Your task to perform on an android device: turn on data saver in the chrome app Image 0: 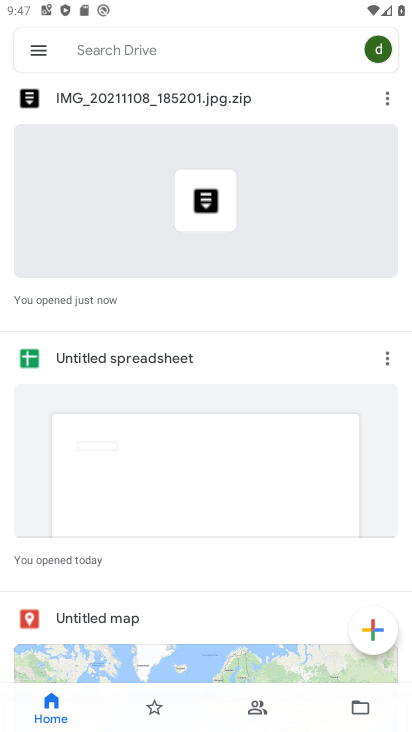
Step 0: press home button
Your task to perform on an android device: turn on data saver in the chrome app Image 1: 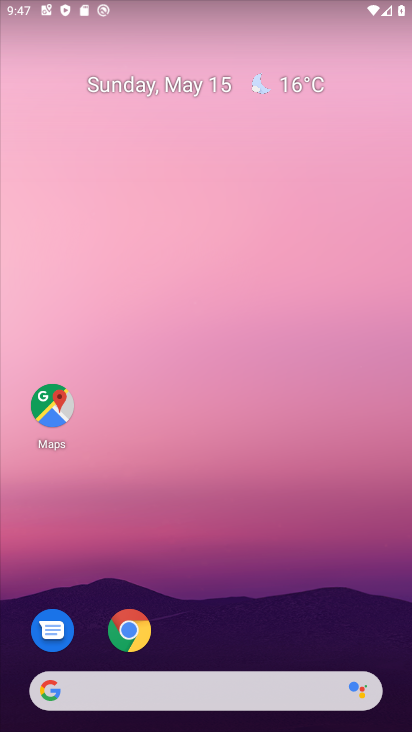
Step 1: click (133, 615)
Your task to perform on an android device: turn on data saver in the chrome app Image 2: 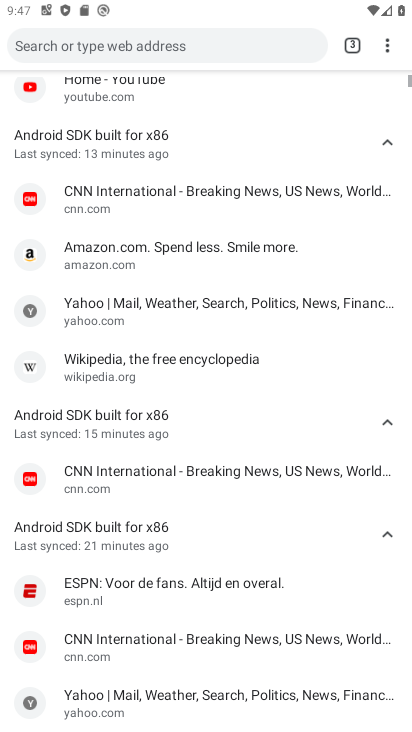
Step 2: drag from (382, 49) to (241, 369)
Your task to perform on an android device: turn on data saver in the chrome app Image 3: 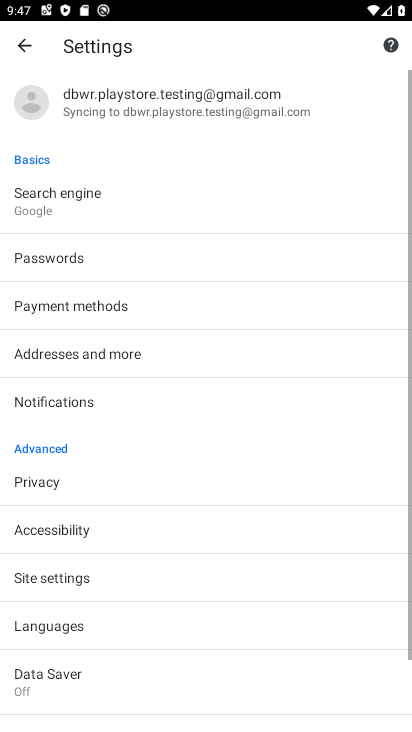
Step 3: click (109, 658)
Your task to perform on an android device: turn on data saver in the chrome app Image 4: 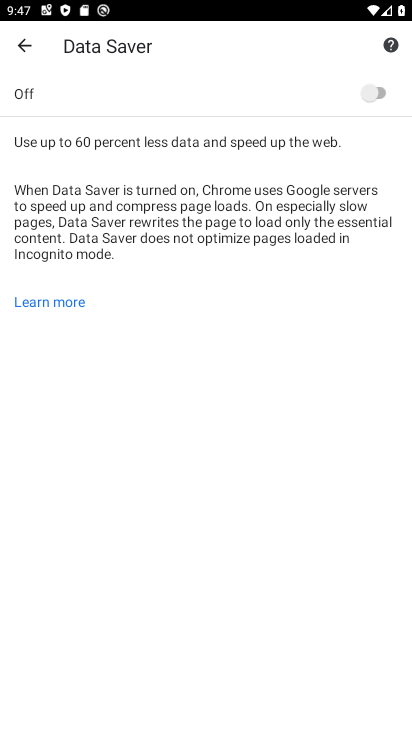
Step 4: click (381, 86)
Your task to perform on an android device: turn on data saver in the chrome app Image 5: 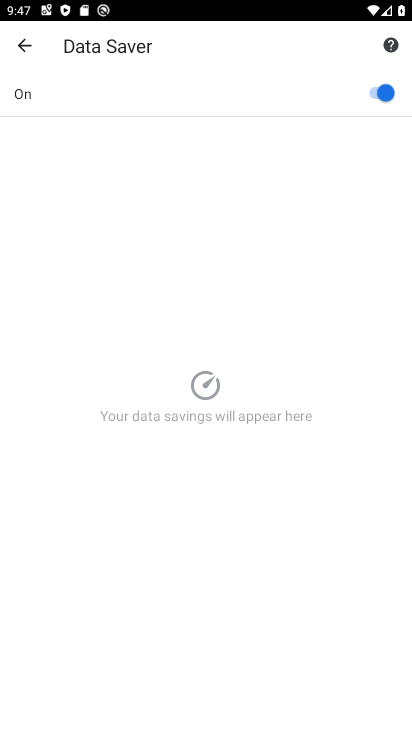
Step 5: task complete